Your task to perform on an android device: Go to Maps Image 0: 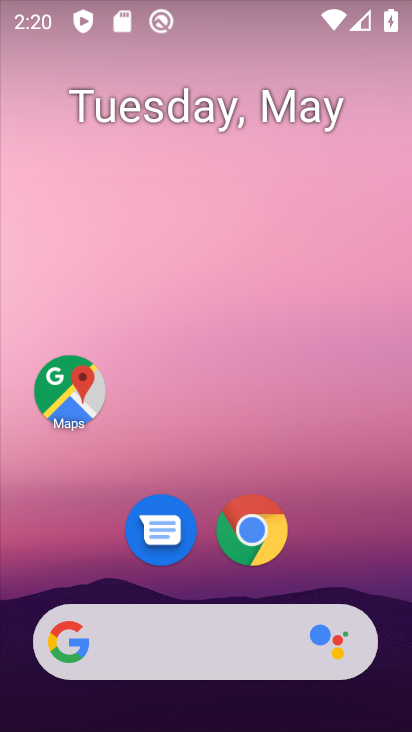
Step 0: click (69, 384)
Your task to perform on an android device: Go to Maps Image 1: 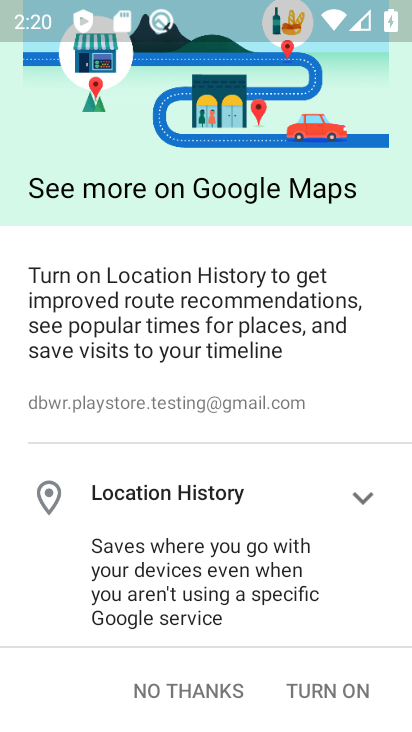
Step 1: click (206, 696)
Your task to perform on an android device: Go to Maps Image 2: 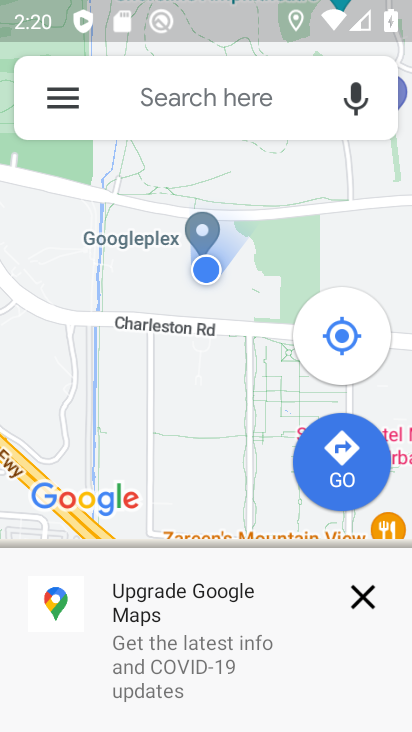
Step 2: click (363, 593)
Your task to perform on an android device: Go to Maps Image 3: 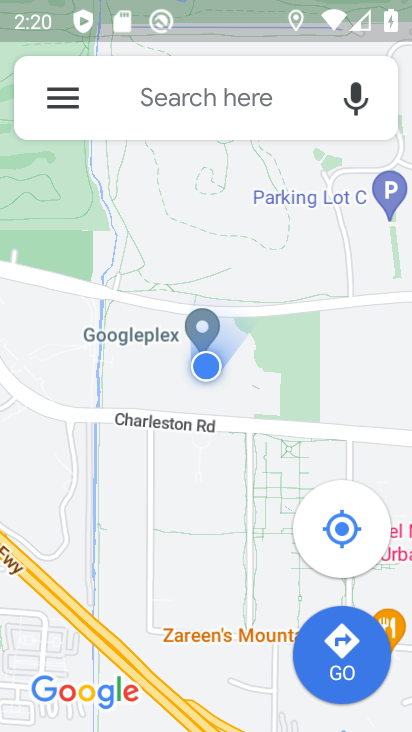
Step 3: task complete